Your task to perform on an android device: Is it going to rain this weekend? Image 0: 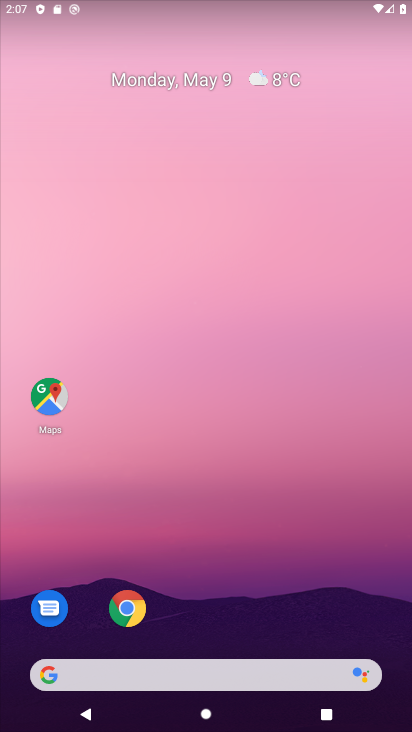
Step 0: click (124, 602)
Your task to perform on an android device: Is it going to rain this weekend? Image 1: 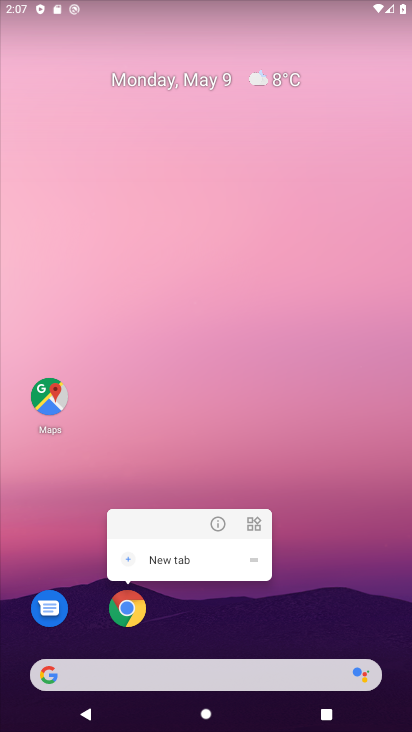
Step 1: click (123, 606)
Your task to perform on an android device: Is it going to rain this weekend? Image 2: 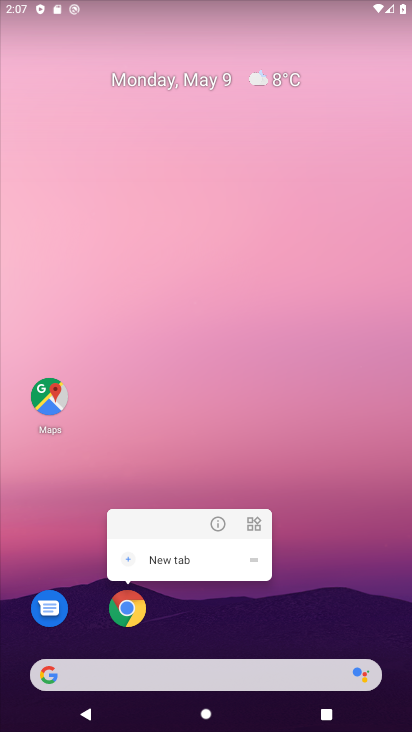
Step 2: click (123, 610)
Your task to perform on an android device: Is it going to rain this weekend? Image 3: 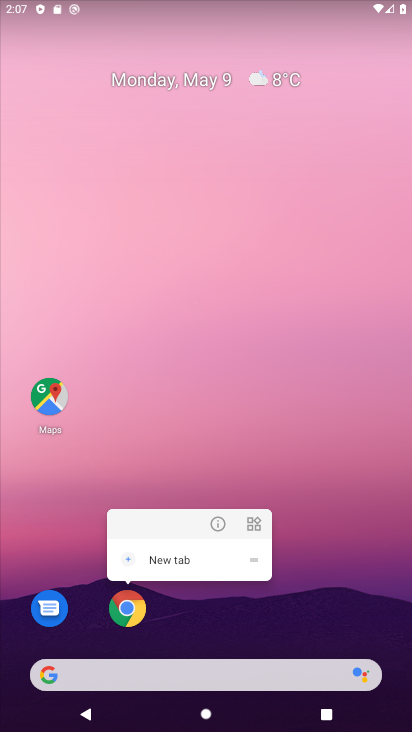
Step 3: click (123, 612)
Your task to perform on an android device: Is it going to rain this weekend? Image 4: 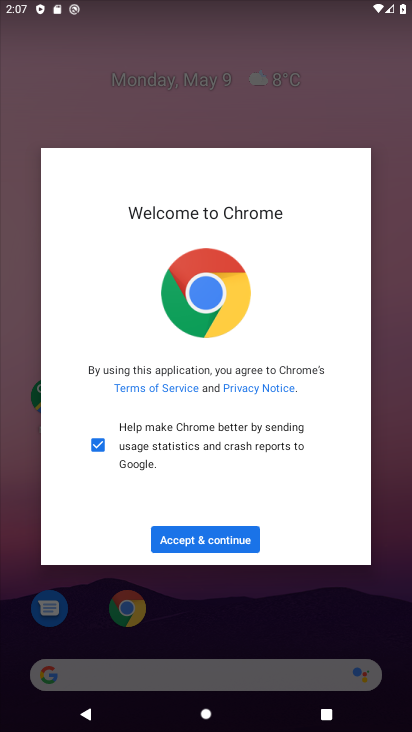
Step 4: click (220, 537)
Your task to perform on an android device: Is it going to rain this weekend? Image 5: 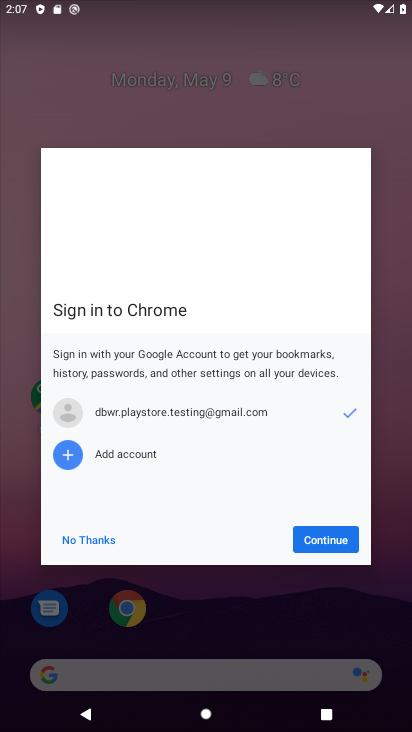
Step 5: click (345, 535)
Your task to perform on an android device: Is it going to rain this weekend? Image 6: 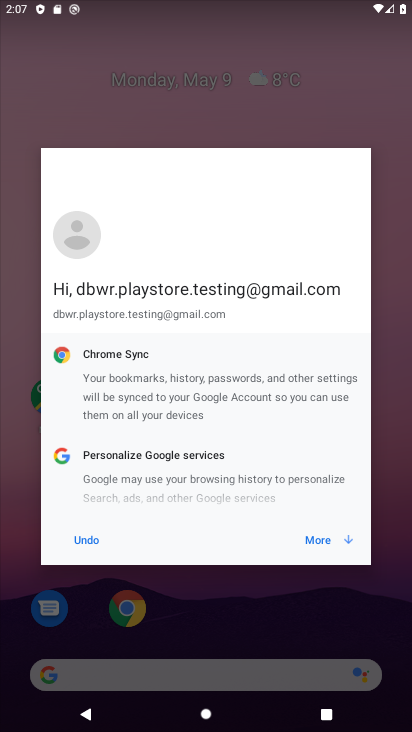
Step 6: click (313, 538)
Your task to perform on an android device: Is it going to rain this weekend? Image 7: 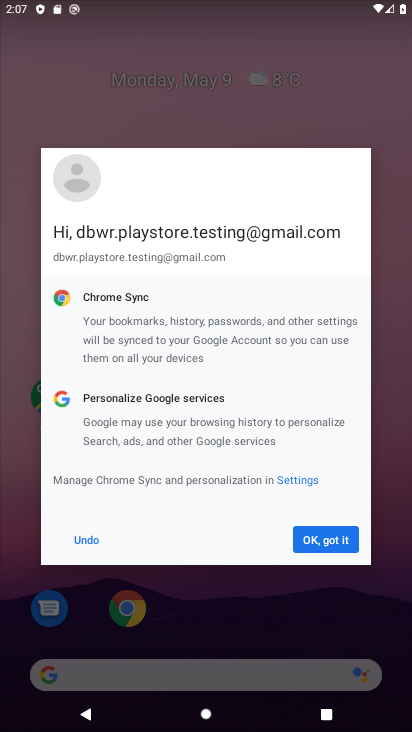
Step 7: click (324, 546)
Your task to perform on an android device: Is it going to rain this weekend? Image 8: 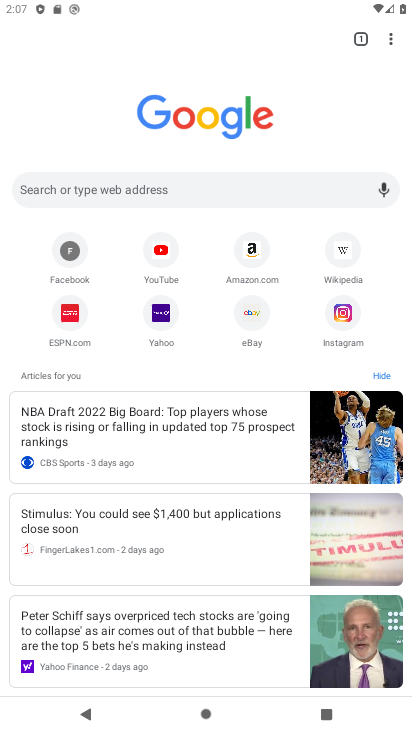
Step 8: click (160, 185)
Your task to perform on an android device: Is it going to rain this weekend? Image 9: 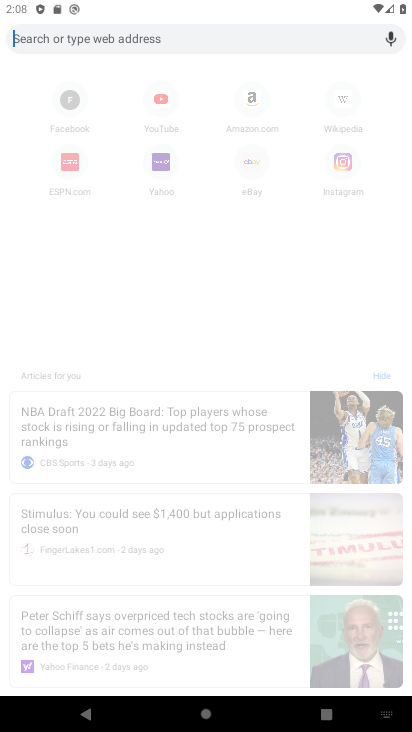
Step 9: type "Is it going to rain this weekend?"
Your task to perform on an android device: Is it going to rain this weekend? Image 10: 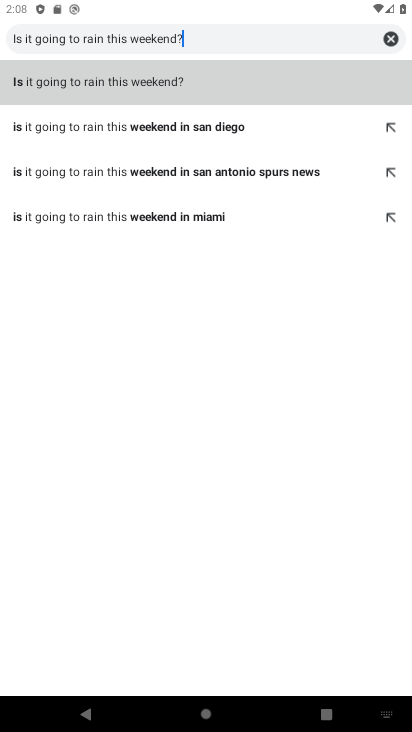
Step 10: click (174, 93)
Your task to perform on an android device: Is it going to rain this weekend? Image 11: 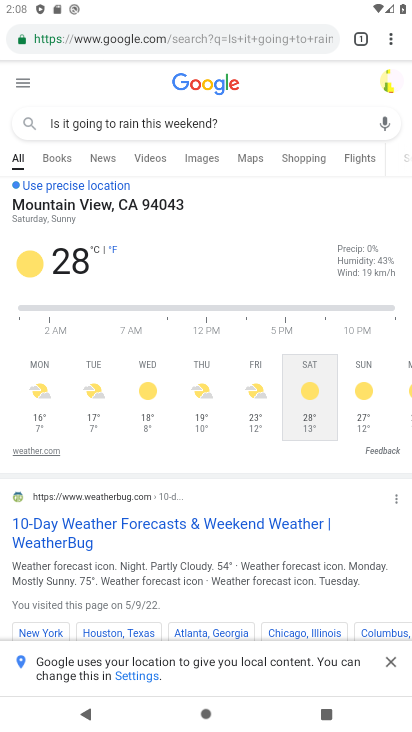
Step 11: task complete